Your task to perform on an android device: Go to battery settings Image 0: 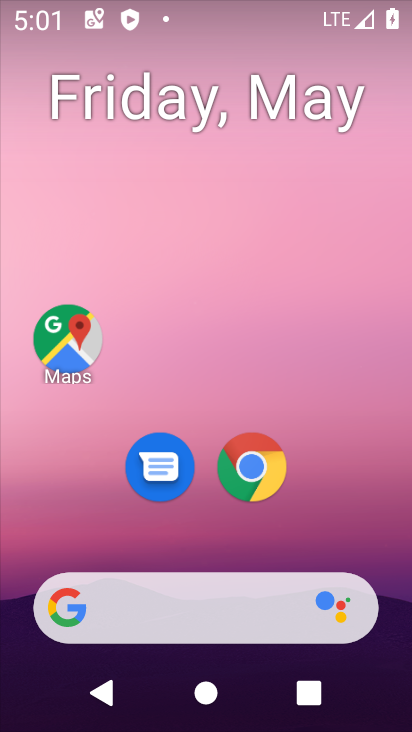
Step 0: drag from (324, 519) to (303, 274)
Your task to perform on an android device: Go to battery settings Image 1: 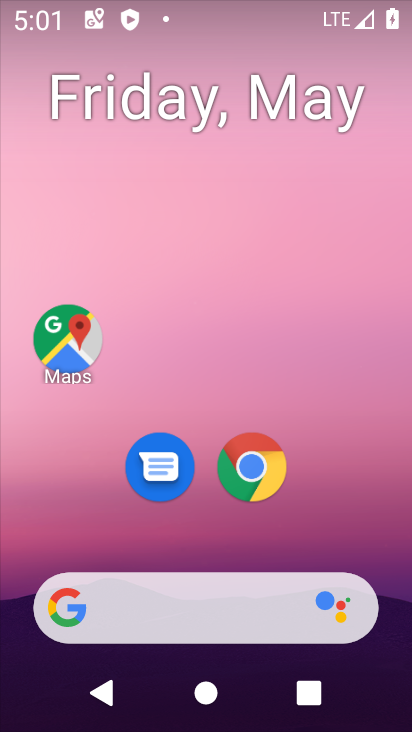
Step 1: drag from (332, 462) to (347, 58)
Your task to perform on an android device: Go to battery settings Image 2: 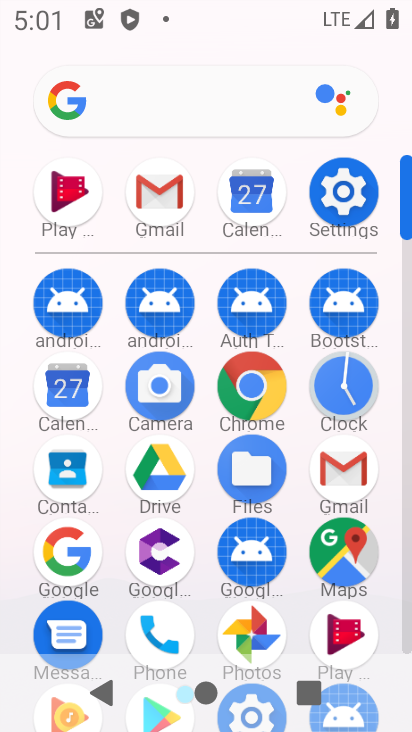
Step 2: click (336, 218)
Your task to perform on an android device: Go to battery settings Image 3: 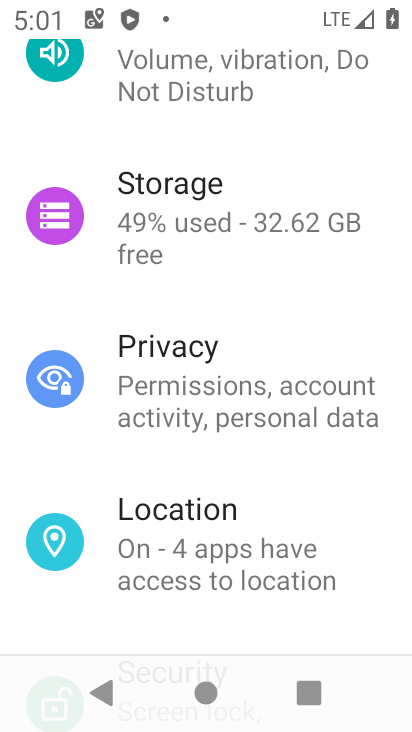
Step 3: drag from (314, 163) to (335, 522)
Your task to perform on an android device: Go to battery settings Image 4: 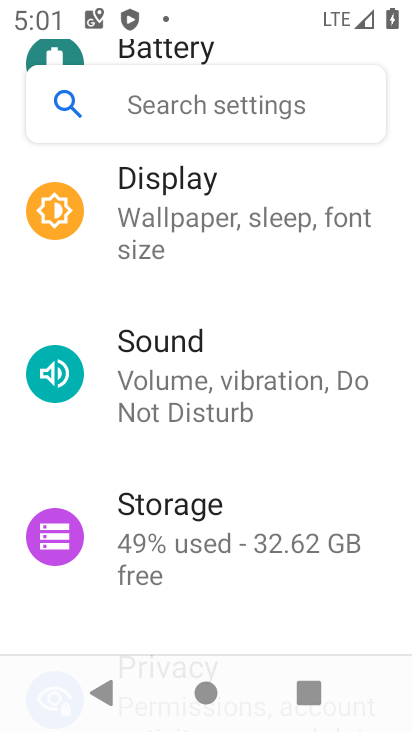
Step 4: drag from (252, 244) to (331, 643)
Your task to perform on an android device: Go to battery settings Image 5: 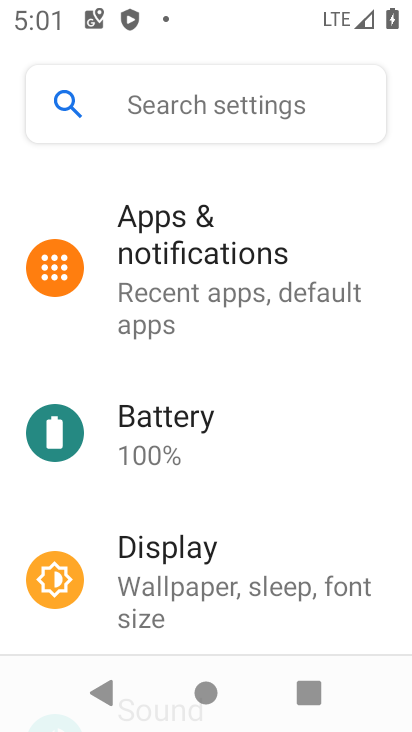
Step 5: click (260, 419)
Your task to perform on an android device: Go to battery settings Image 6: 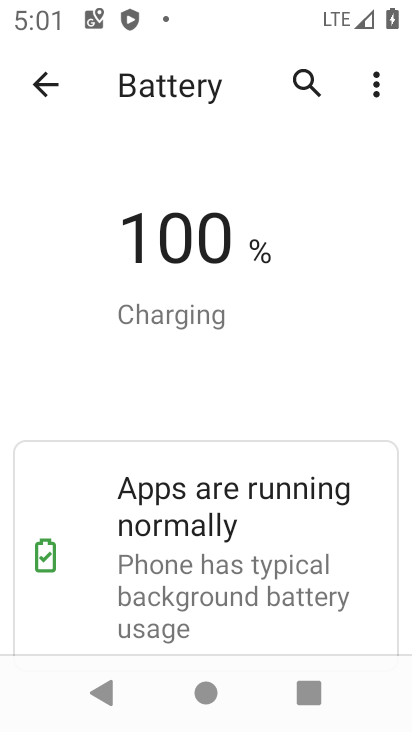
Step 6: task complete